Your task to perform on an android device: Go to internet settings Image 0: 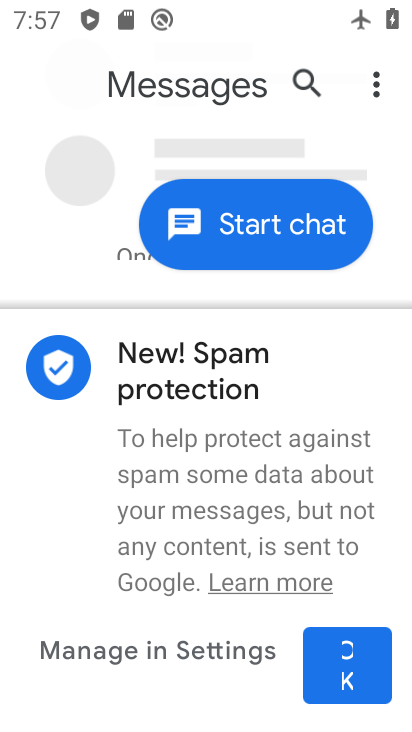
Step 0: press home button
Your task to perform on an android device: Go to internet settings Image 1: 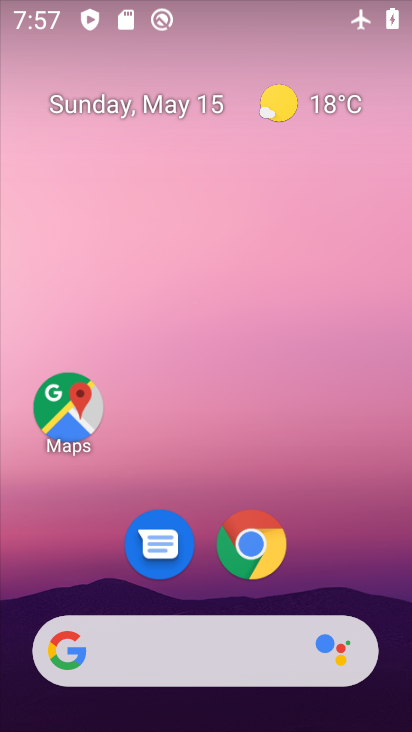
Step 1: drag from (340, 595) to (283, 89)
Your task to perform on an android device: Go to internet settings Image 2: 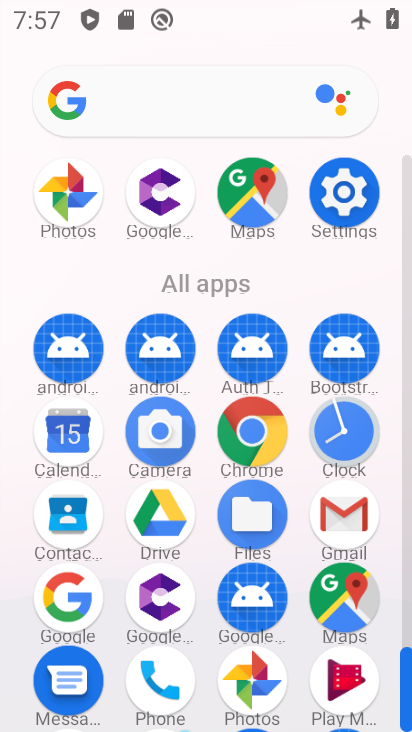
Step 2: click (359, 174)
Your task to perform on an android device: Go to internet settings Image 3: 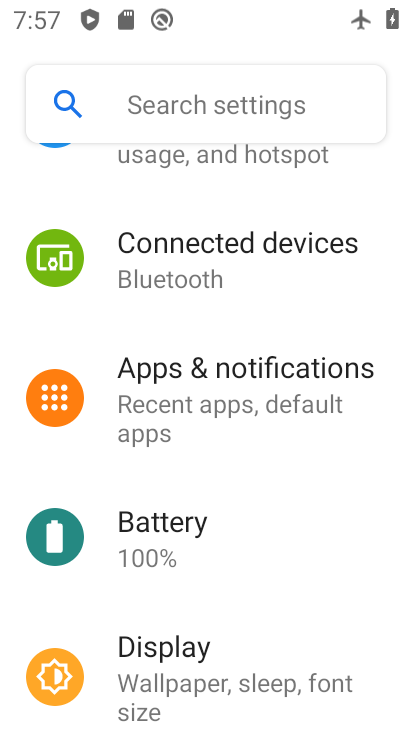
Step 3: drag from (357, 195) to (344, 433)
Your task to perform on an android device: Go to internet settings Image 4: 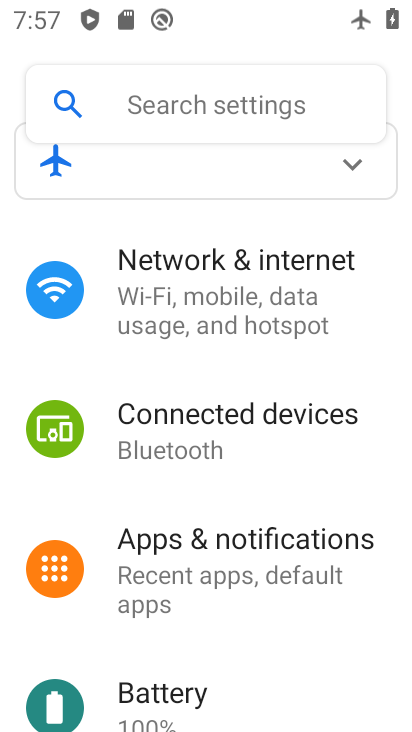
Step 4: click (297, 302)
Your task to perform on an android device: Go to internet settings Image 5: 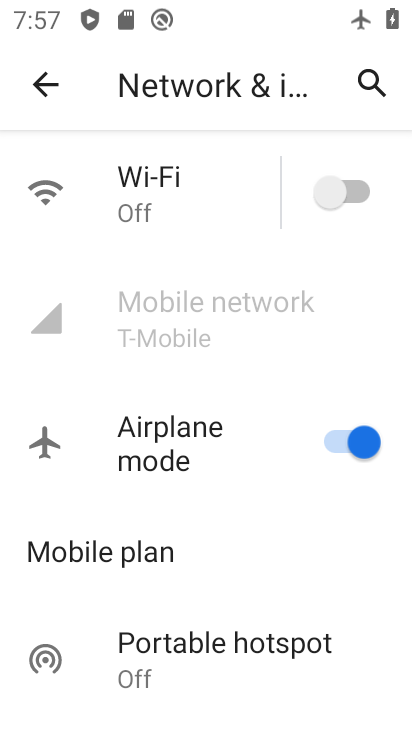
Step 5: task complete